Your task to perform on an android device: Open Android settings Image 0: 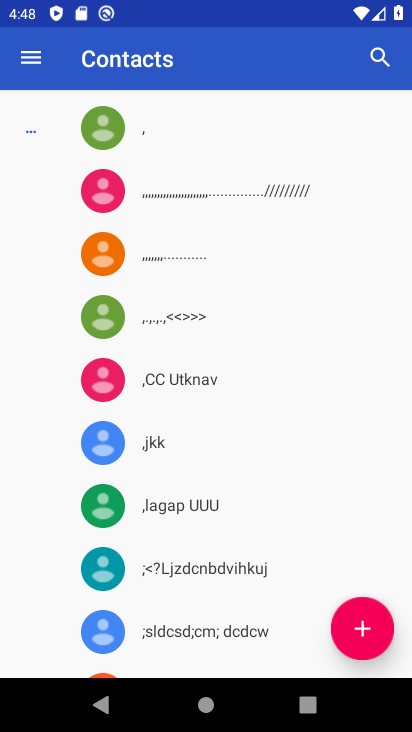
Step 0: press home button
Your task to perform on an android device: Open Android settings Image 1: 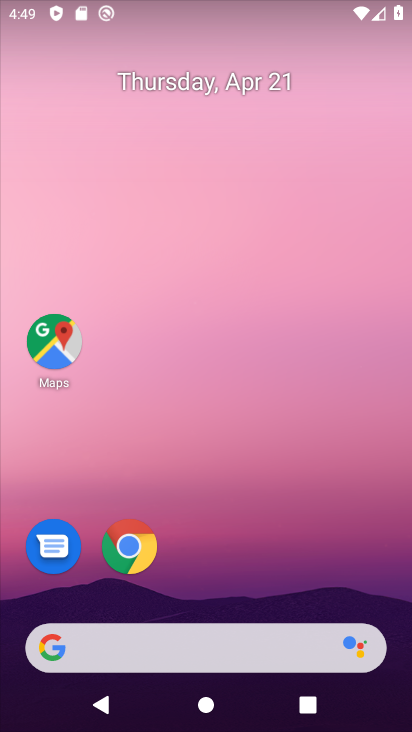
Step 1: drag from (196, 539) to (200, 0)
Your task to perform on an android device: Open Android settings Image 2: 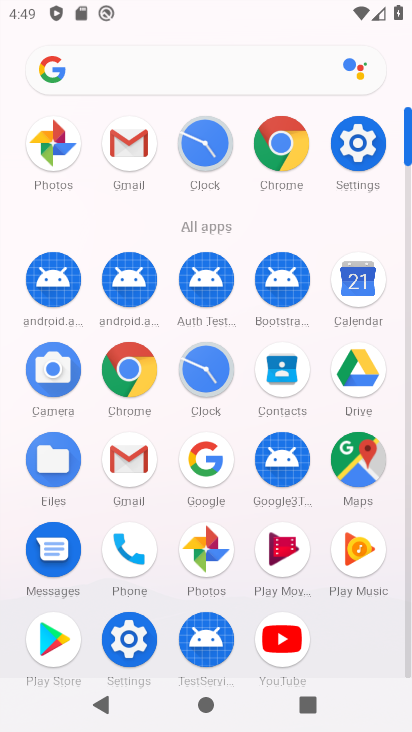
Step 2: click (358, 151)
Your task to perform on an android device: Open Android settings Image 3: 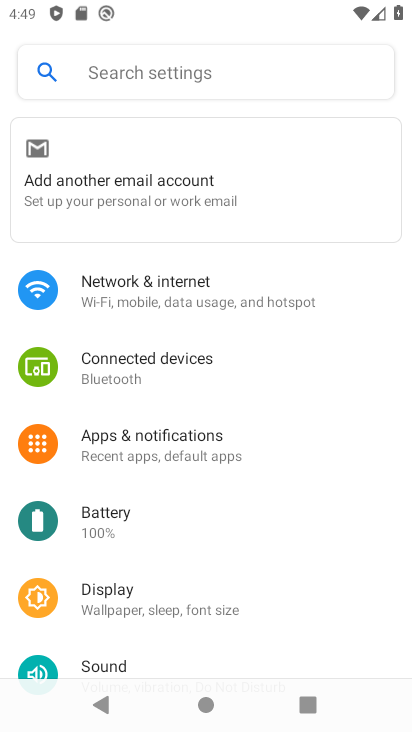
Step 3: drag from (274, 599) to (278, 123)
Your task to perform on an android device: Open Android settings Image 4: 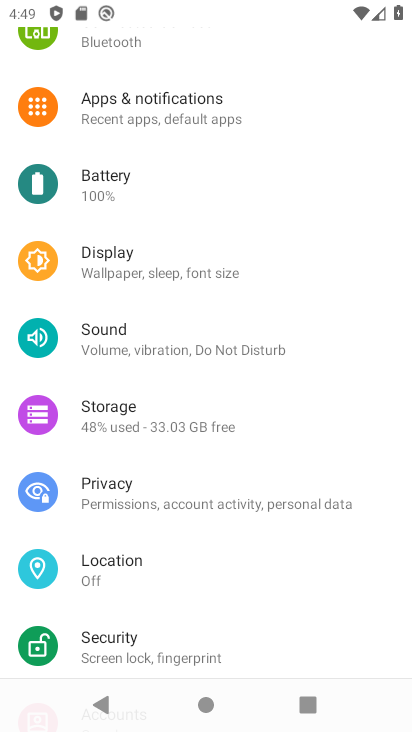
Step 4: drag from (288, 573) to (246, 122)
Your task to perform on an android device: Open Android settings Image 5: 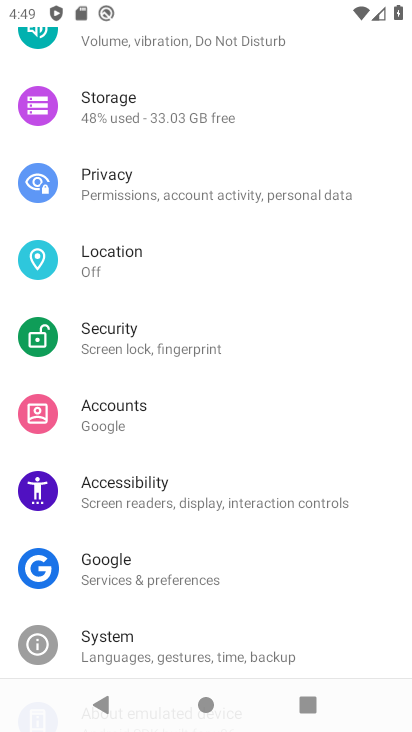
Step 5: drag from (291, 561) to (292, 155)
Your task to perform on an android device: Open Android settings Image 6: 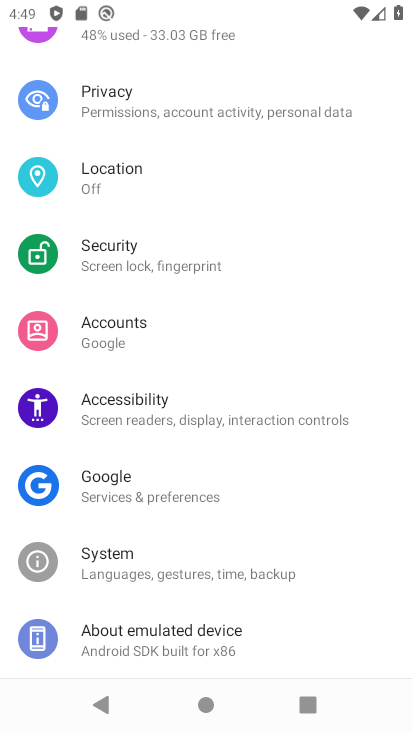
Step 6: click (203, 655)
Your task to perform on an android device: Open Android settings Image 7: 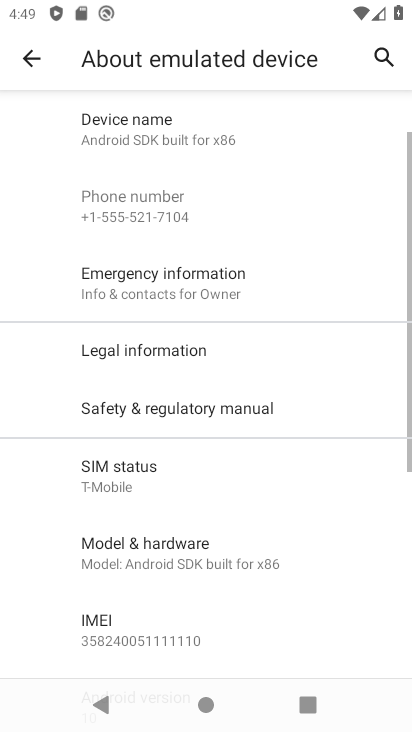
Step 7: drag from (214, 567) to (246, 195)
Your task to perform on an android device: Open Android settings Image 8: 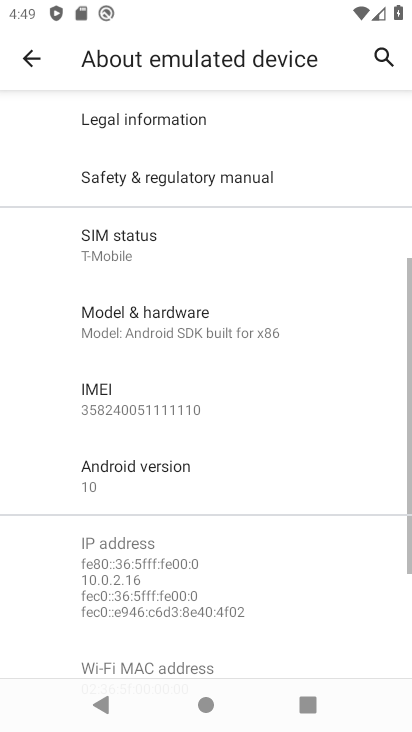
Step 8: click (227, 469)
Your task to perform on an android device: Open Android settings Image 9: 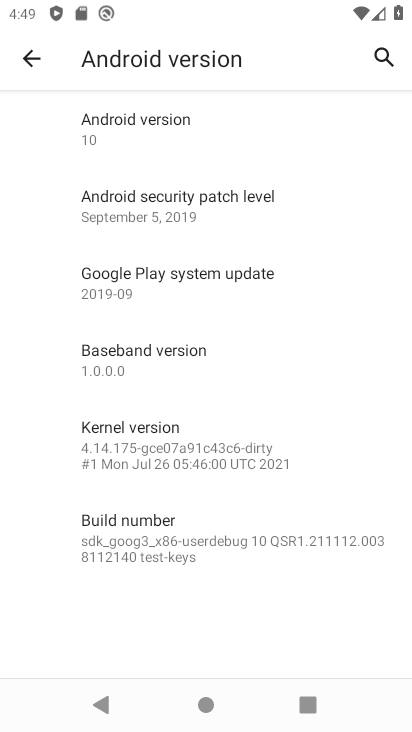
Step 9: click (198, 138)
Your task to perform on an android device: Open Android settings Image 10: 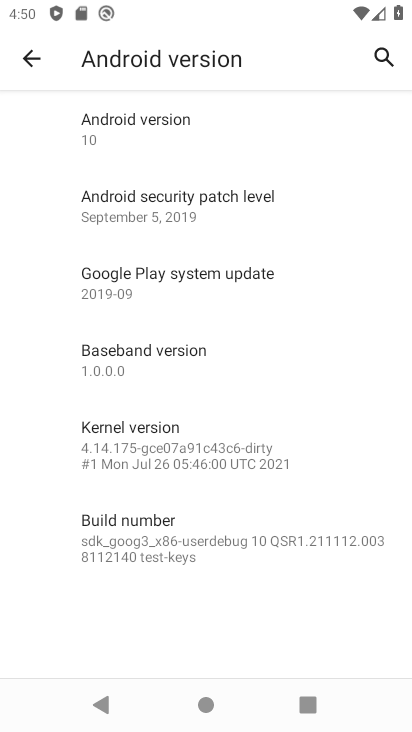
Step 10: click (206, 154)
Your task to perform on an android device: Open Android settings Image 11: 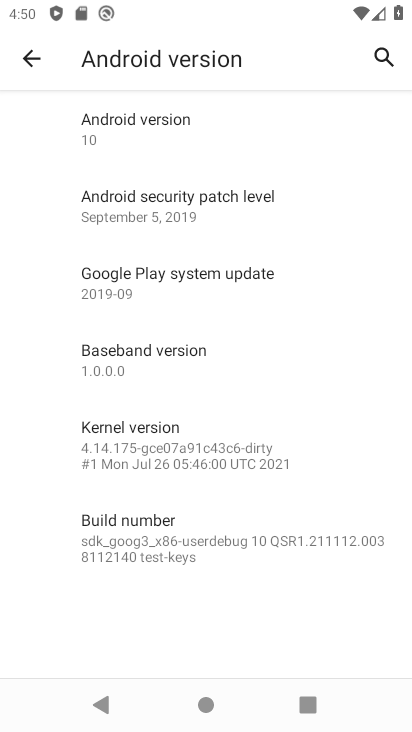
Step 11: task complete